Your task to perform on an android device: change the clock style Image 0: 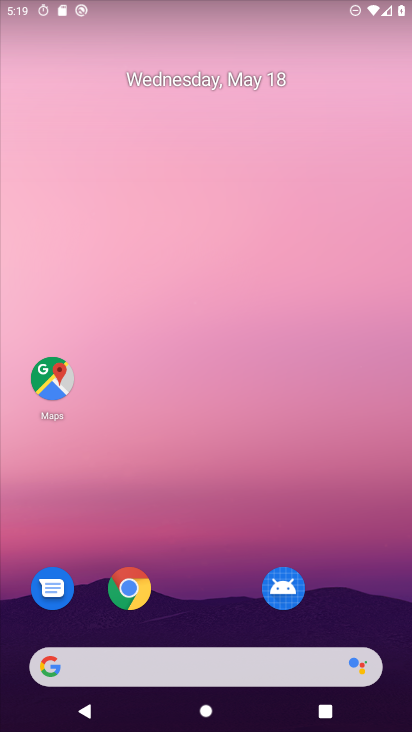
Step 0: drag from (243, 534) to (246, 69)
Your task to perform on an android device: change the clock style Image 1: 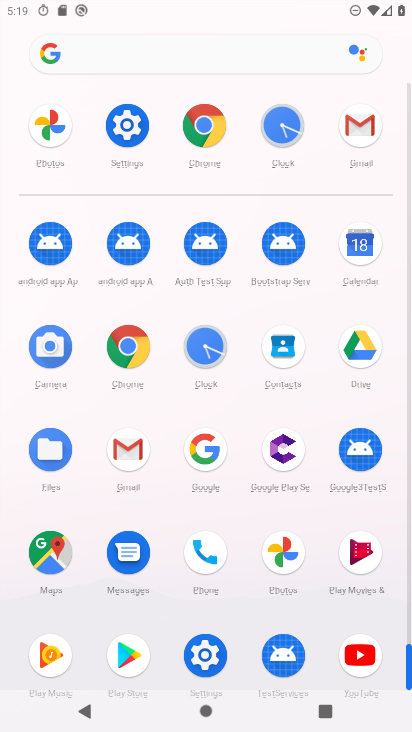
Step 1: click (281, 128)
Your task to perform on an android device: change the clock style Image 2: 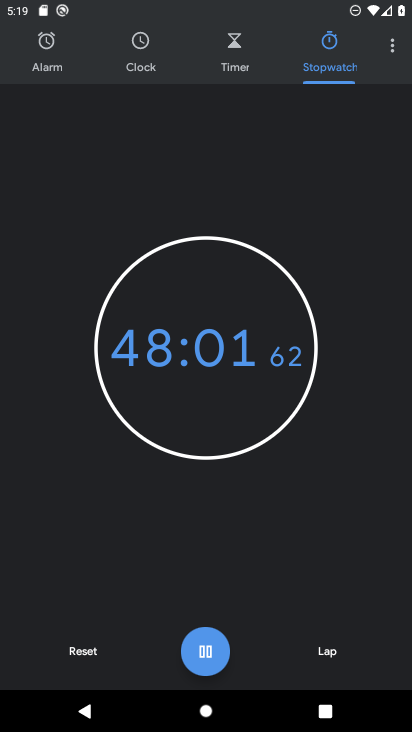
Step 2: click (394, 43)
Your task to perform on an android device: change the clock style Image 3: 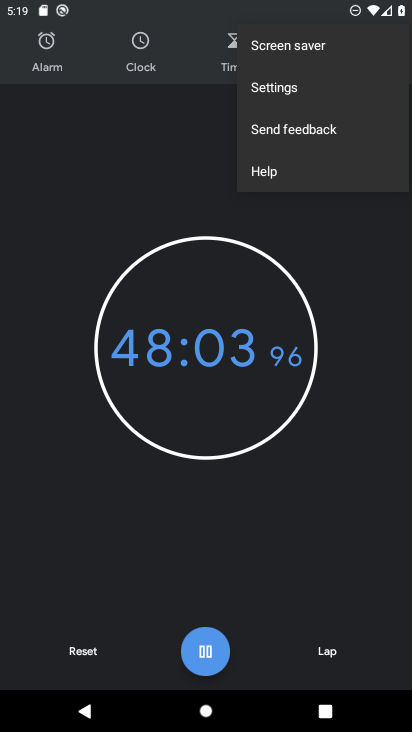
Step 3: click (293, 87)
Your task to perform on an android device: change the clock style Image 4: 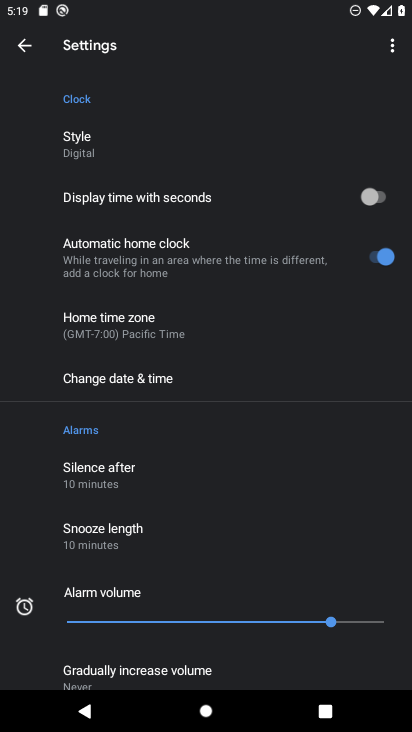
Step 4: click (68, 145)
Your task to perform on an android device: change the clock style Image 5: 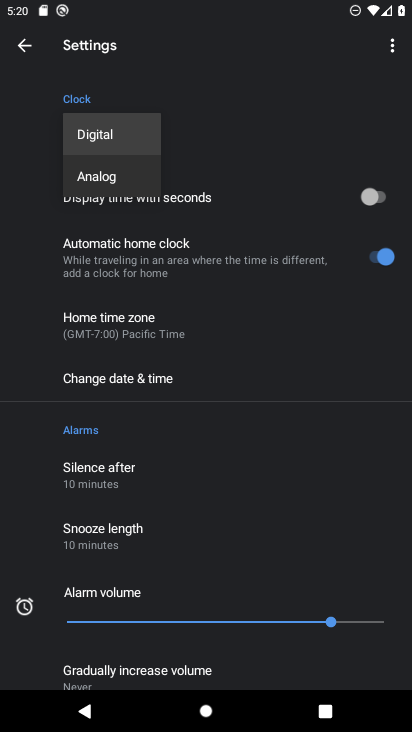
Step 5: click (81, 183)
Your task to perform on an android device: change the clock style Image 6: 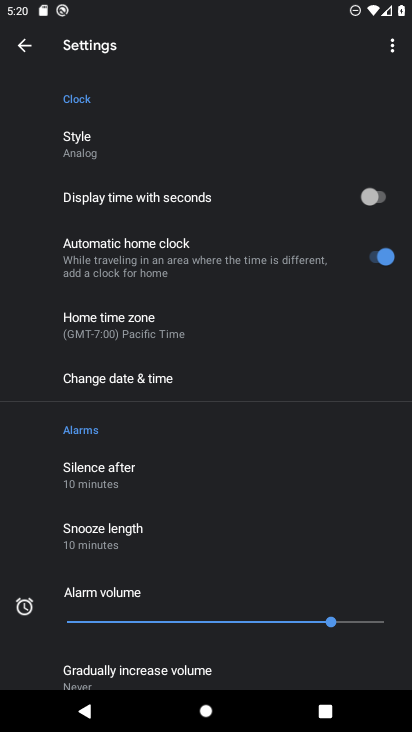
Step 6: task complete